Your task to perform on an android device: Go to notification settings Image 0: 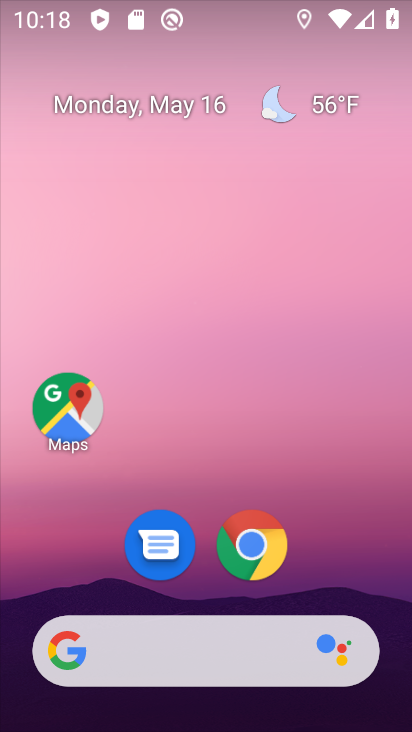
Step 0: drag from (213, 618) to (144, 26)
Your task to perform on an android device: Go to notification settings Image 1: 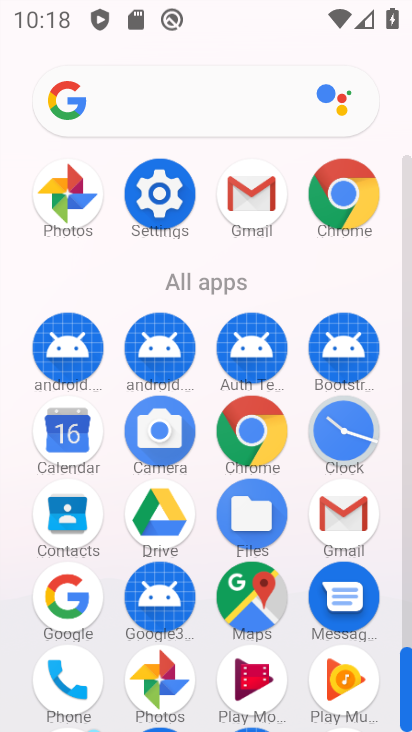
Step 1: click (143, 202)
Your task to perform on an android device: Go to notification settings Image 2: 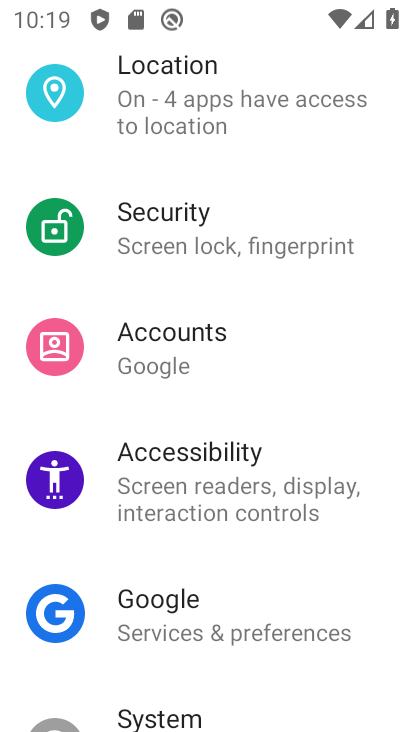
Step 2: drag from (215, 384) to (267, 675)
Your task to perform on an android device: Go to notification settings Image 3: 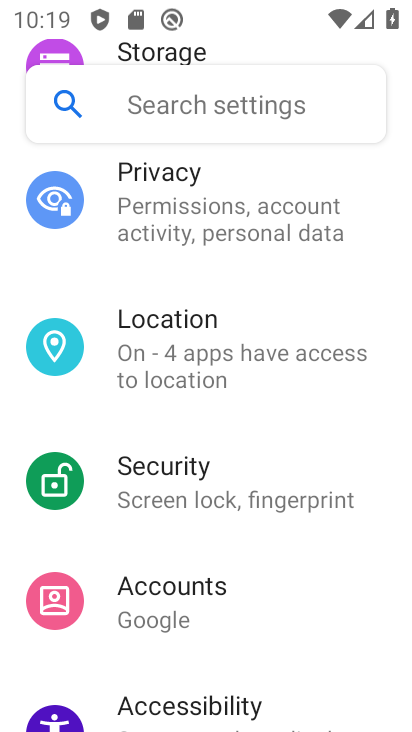
Step 3: drag from (234, 294) to (276, 724)
Your task to perform on an android device: Go to notification settings Image 4: 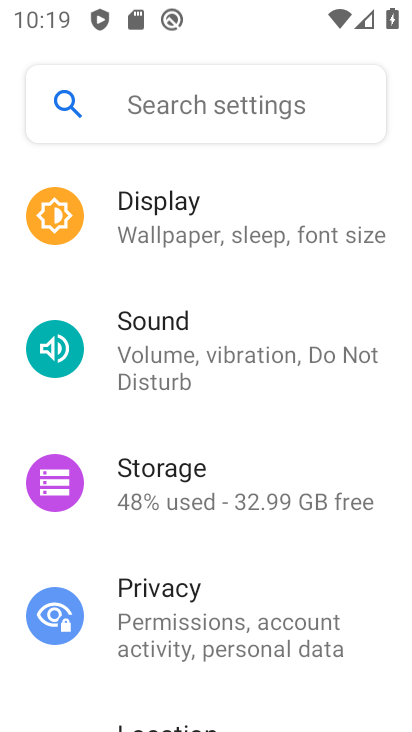
Step 4: drag from (243, 241) to (294, 631)
Your task to perform on an android device: Go to notification settings Image 5: 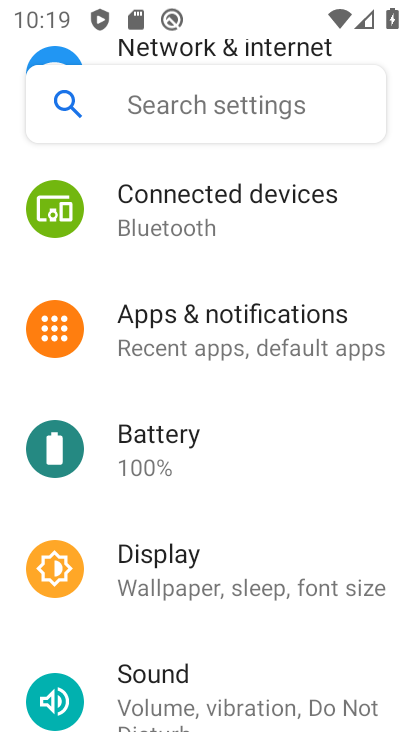
Step 5: click (248, 318)
Your task to perform on an android device: Go to notification settings Image 6: 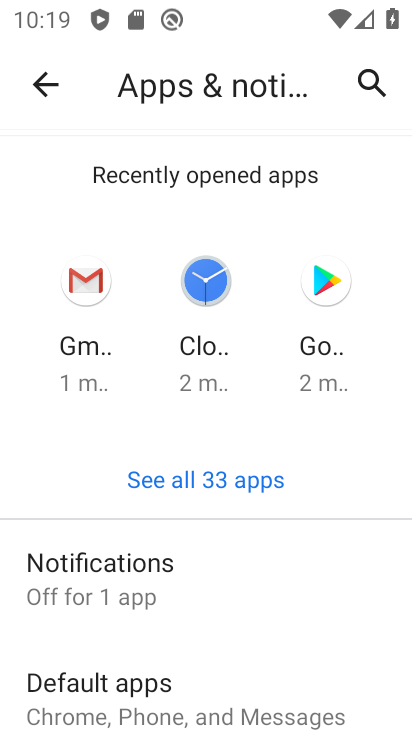
Step 6: click (161, 556)
Your task to perform on an android device: Go to notification settings Image 7: 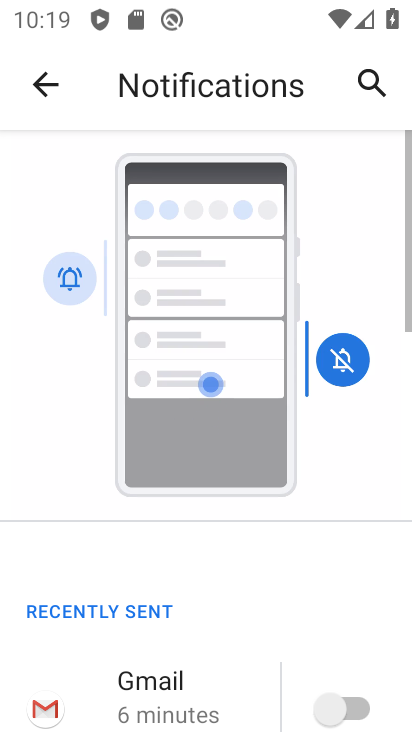
Step 7: task complete